Your task to perform on an android device: turn off priority inbox in the gmail app Image 0: 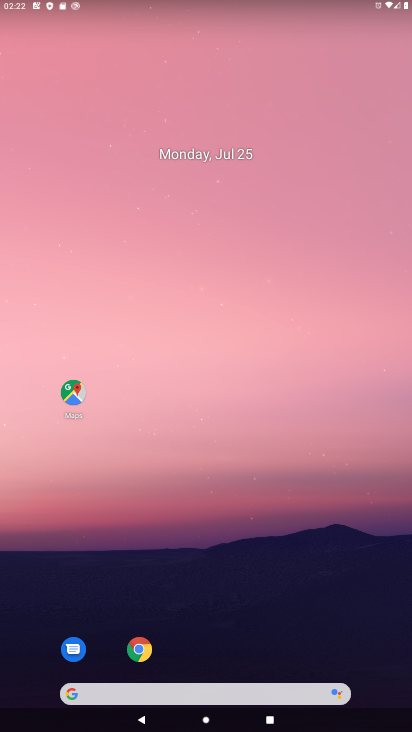
Step 0: drag from (385, 692) to (336, 170)
Your task to perform on an android device: turn off priority inbox in the gmail app Image 1: 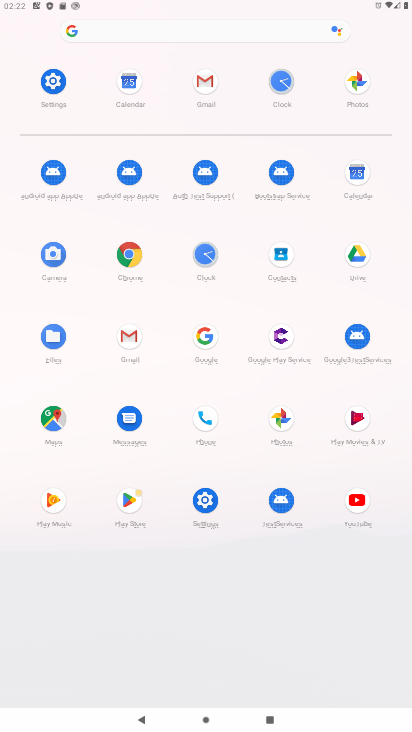
Step 1: click (127, 337)
Your task to perform on an android device: turn off priority inbox in the gmail app Image 2: 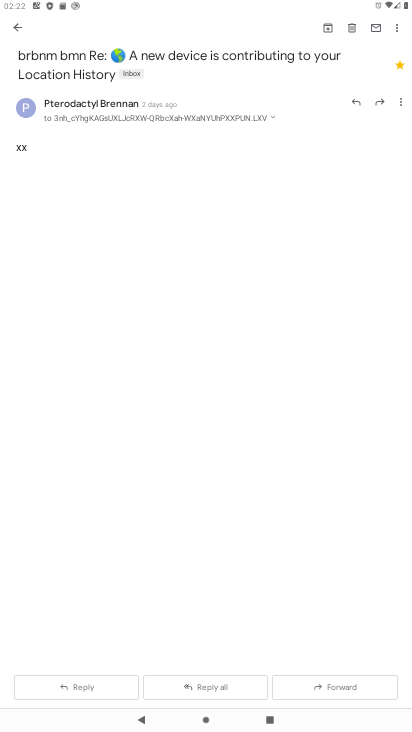
Step 2: press back button
Your task to perform on an android device: turn off priority inbox in the gmail app Image 3: 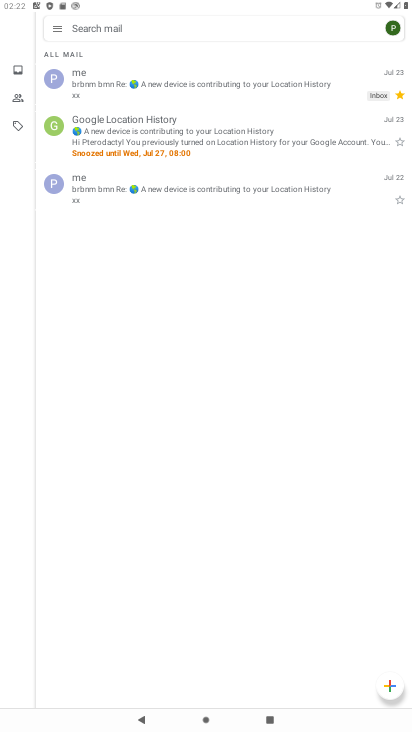
Step 3: click (57, 30)
Your task to perform on an android device: turn off priority inbox in the gmail app Image 4: 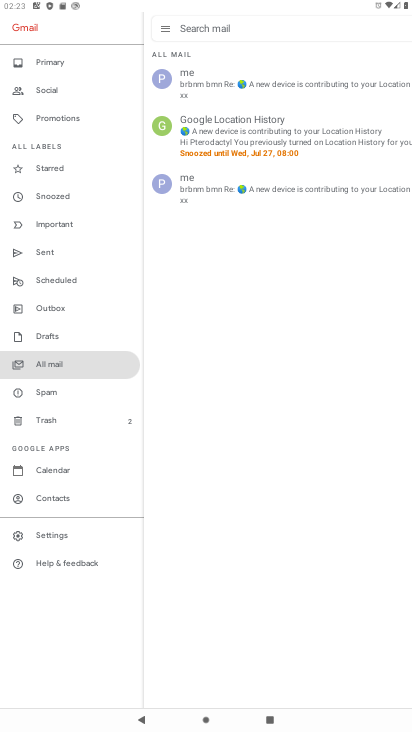
Step 4: click (48, 535)
Your task to perform on an android device: turn off priority inbox in the gmail app Image 5: 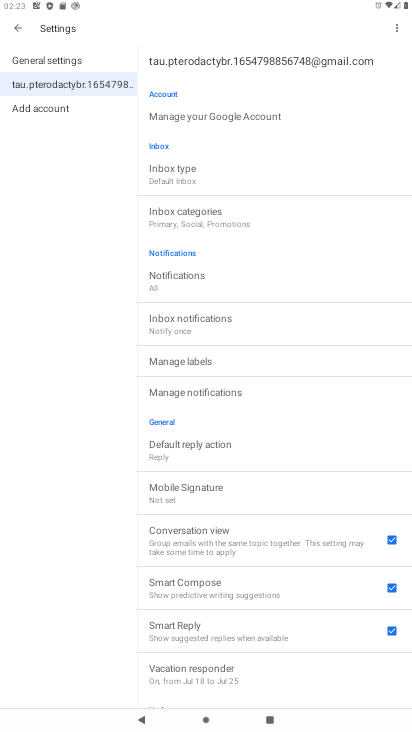
Step 5: click (167, 177)
Your task to perform on an android device: turn off priority inbox in the gmail app Image 6: 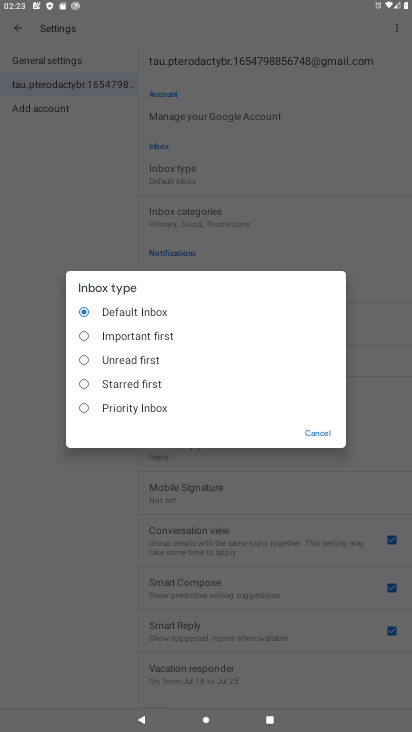
Step 6: task complete